Your task to perform on an android device: Search for custom made wallets on etsy.com Image 0: 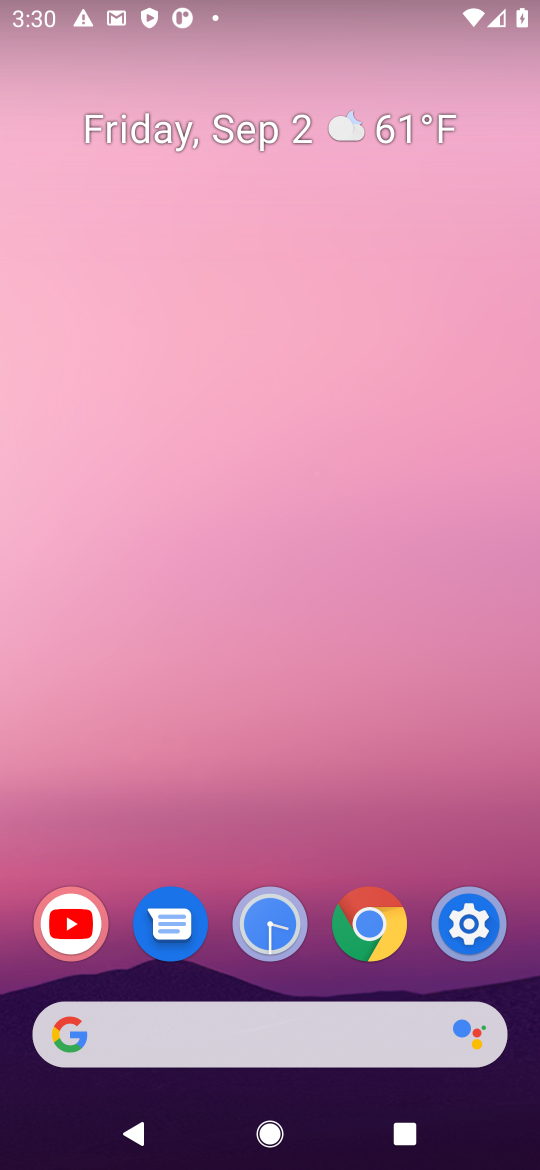
Step 0: press home button
Your task to perform on an android device: Search for custom made wallets on etsy.com Image 1: 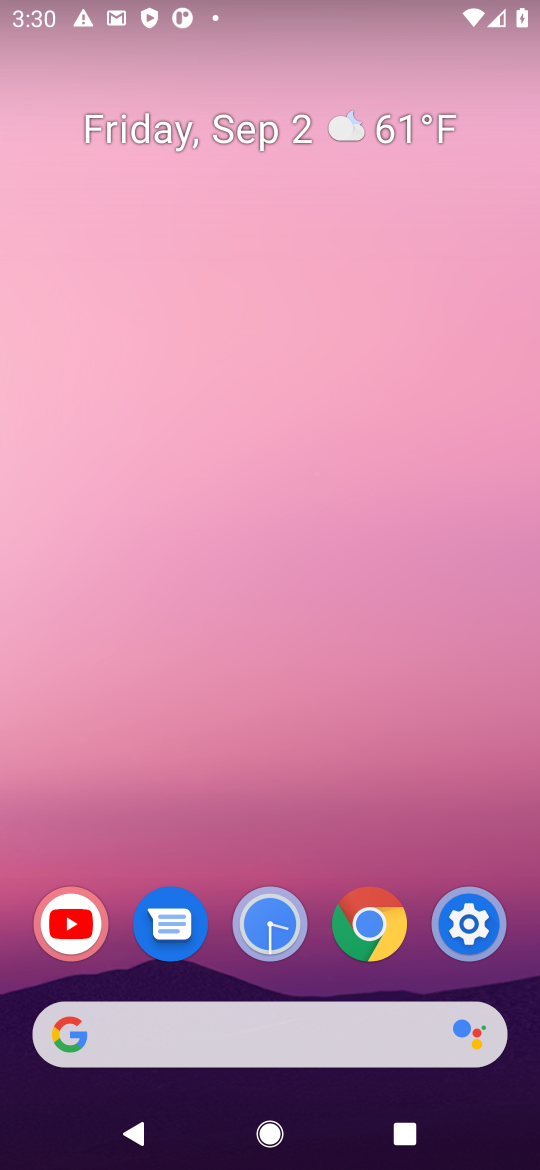
Step 1: click (366, 1023)
Your task to perform on an android device: Search for custom made wallets on etsy.com Image 2: 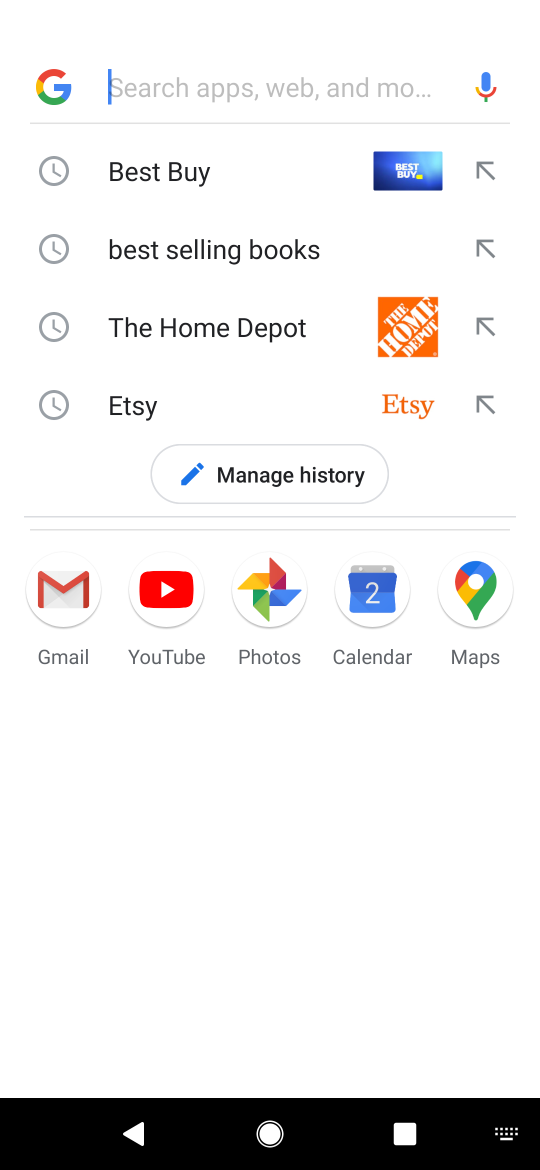
Step 2: press enter
Your task to perform on an android device: Search for custom made wallets on etsy.com Image 3: 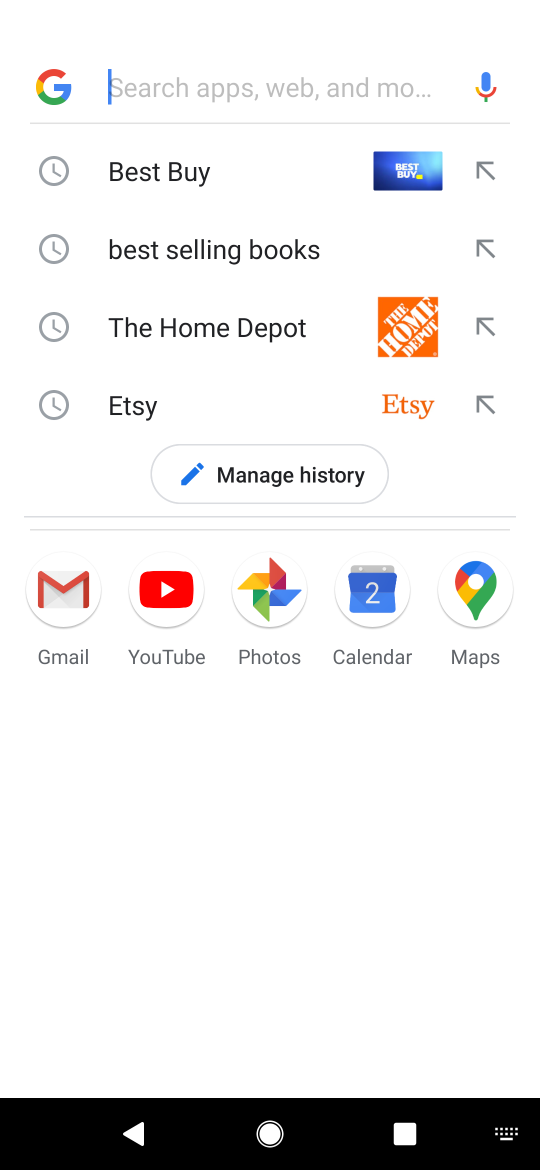
Step 3: type "etsy.com"
Your task to perform on an android device: Search for custom made wallets on etsy.com Image 4: 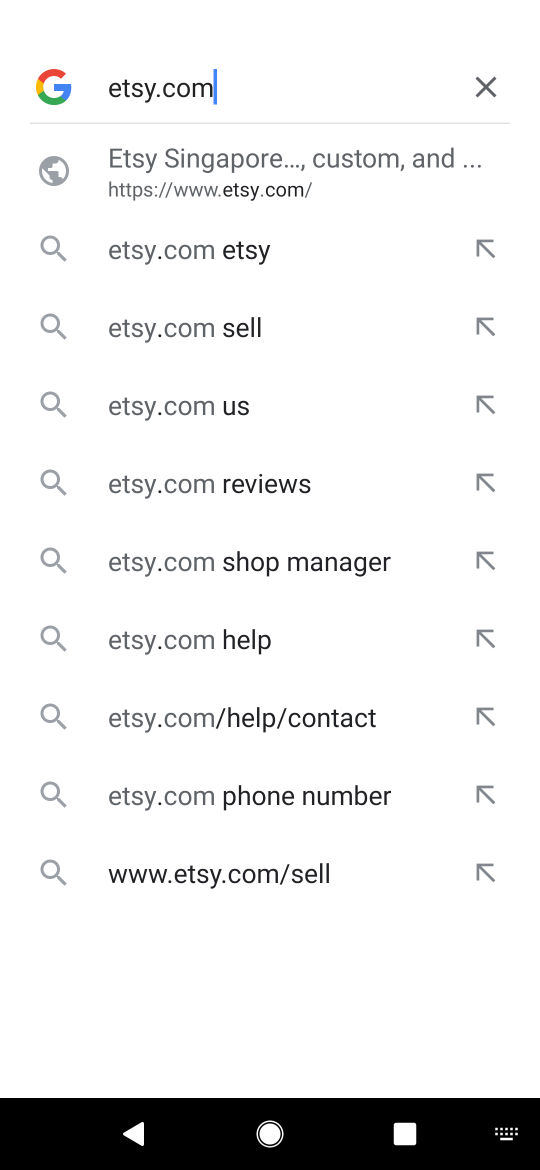
Step 4: click (277, 173)
Your task to perform on an android device: Search for custom made wallets on etsy.com Image 5: 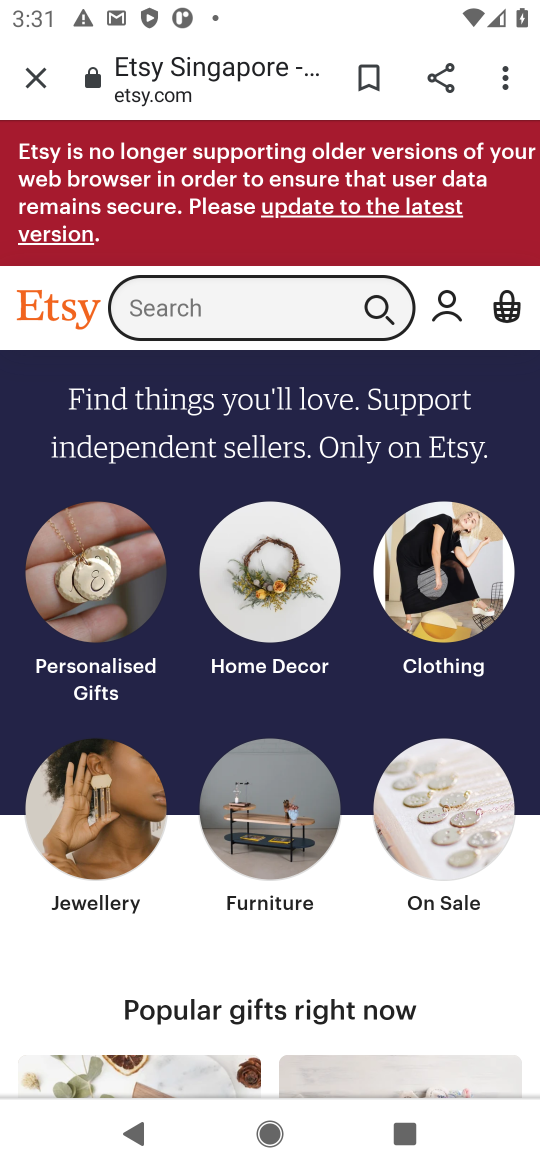
Step 5: click (222, 290)
Your task to perform on an android device: Search for custom made wallets on etsy.com Image 6: 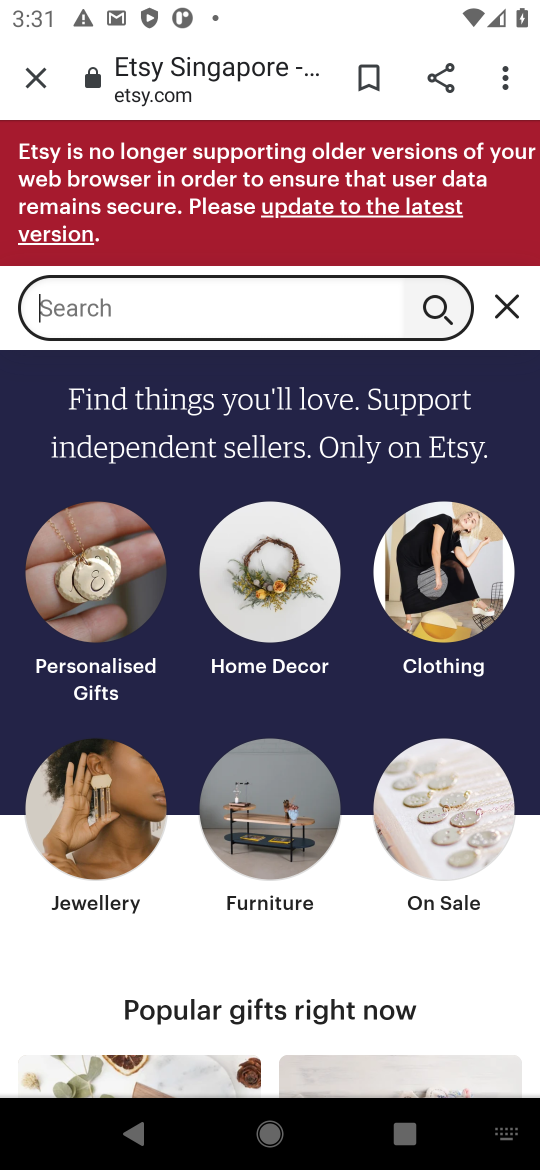
Step 6: type "custom made wallets"
Your task to perform on an android device: Search for custom made wallets on etsy.com Image 7: 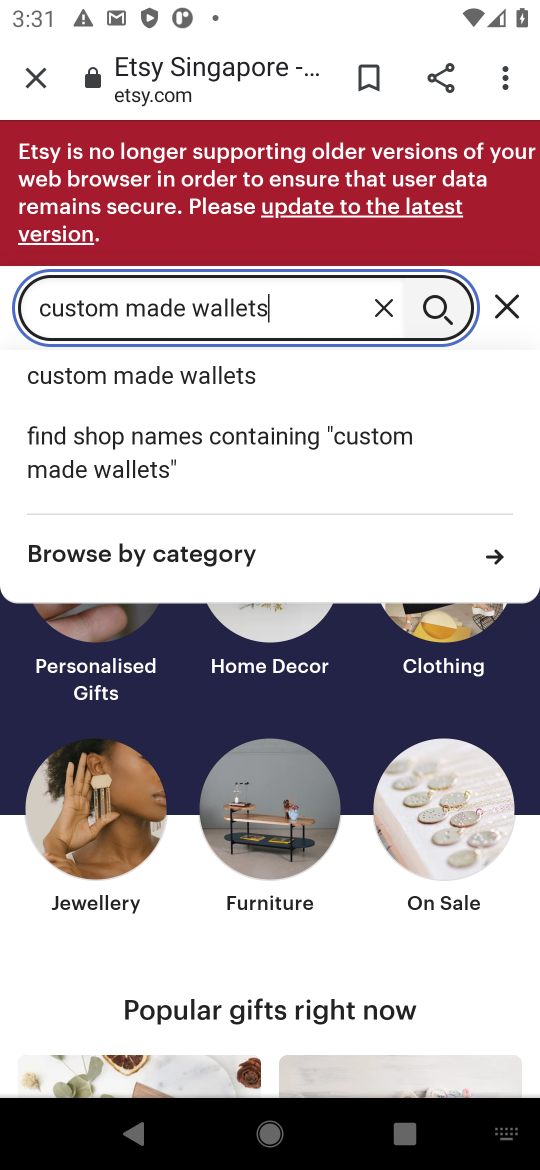
Step 7: click (229, 369)
Your task to perform on an android device: Search for custom made wallets on etsy.com Image 8: 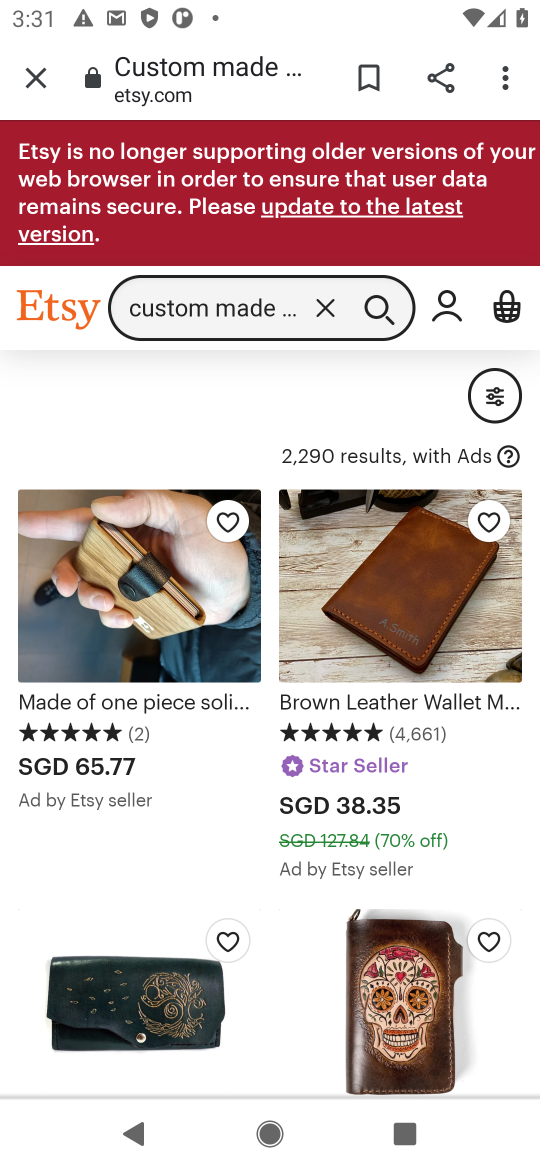
Step 8: task complete